Your task to perform on an android device: Open display settings Image 0: 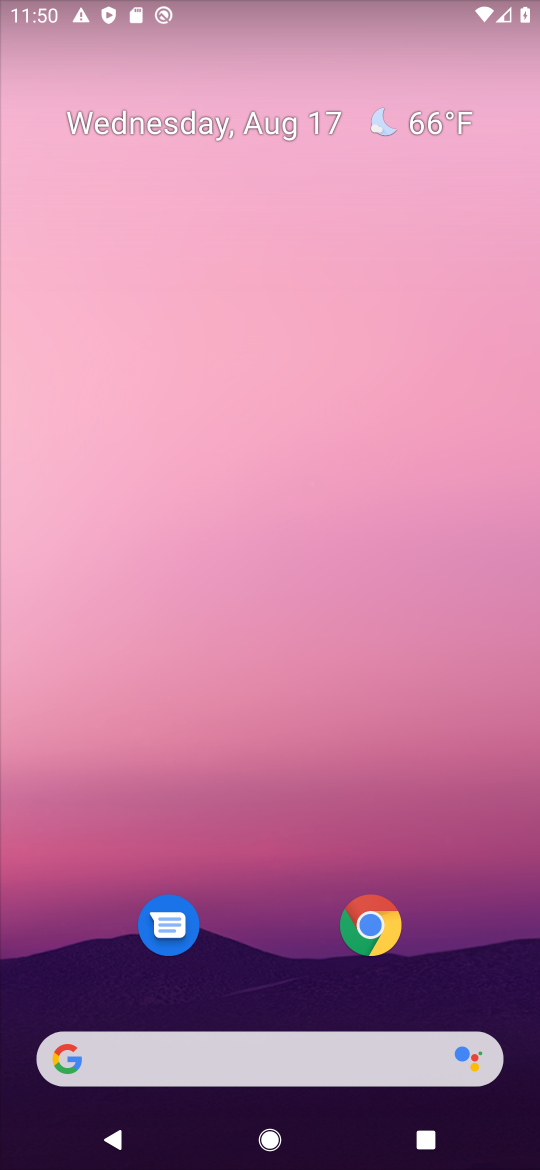
Step 0: drag from (275, 566) to (313, 1)
Your task to perform on an android device: Open display settings Image 1: 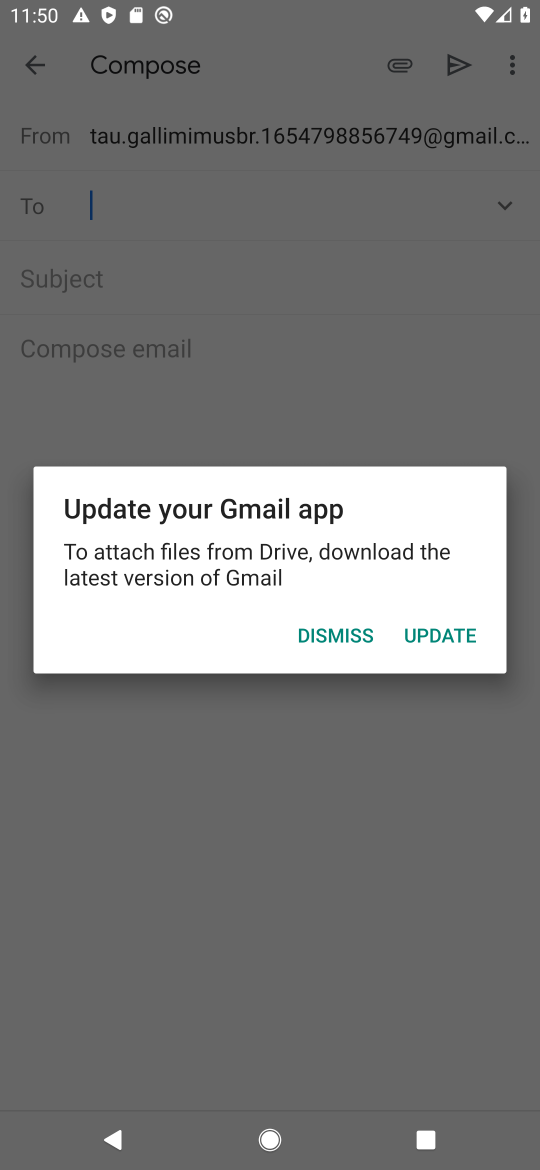
Step 1: drag from (281, 773) to (338, 270)
Your task to perform on an android device: Open display settings Image 2: 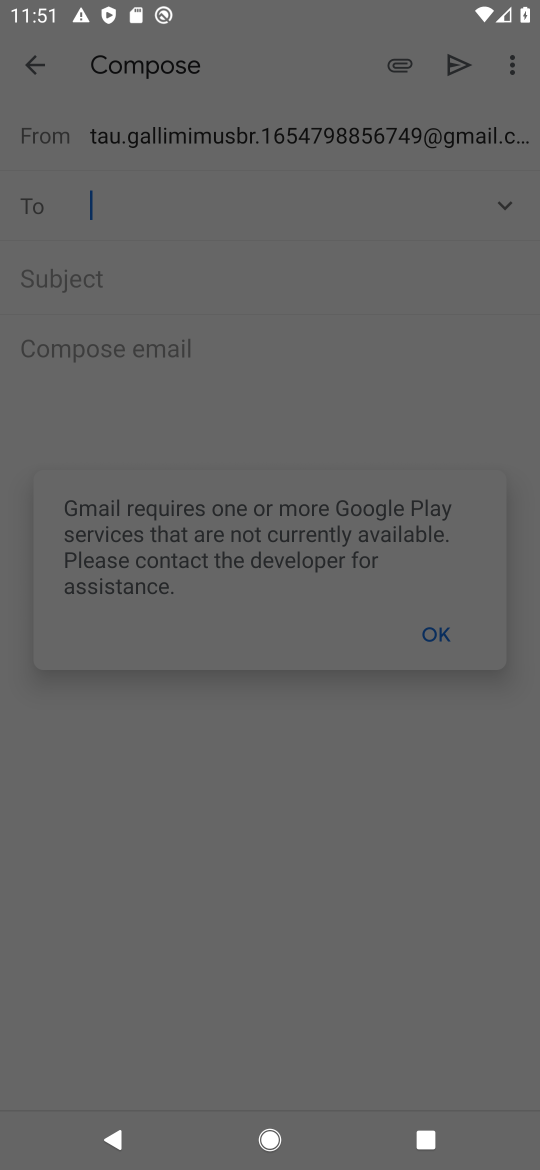
Step 2: press home button
Your task to perform on an android device: Open display settings Image 3: 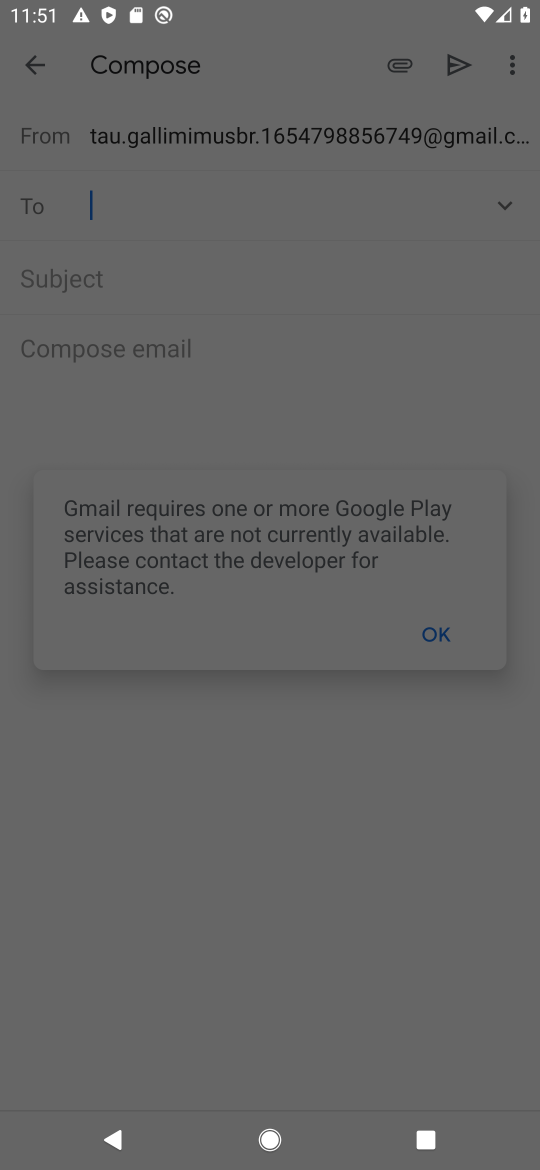
Step 3: press home button
Your task to perform on an android device: Open display settings Image 4: 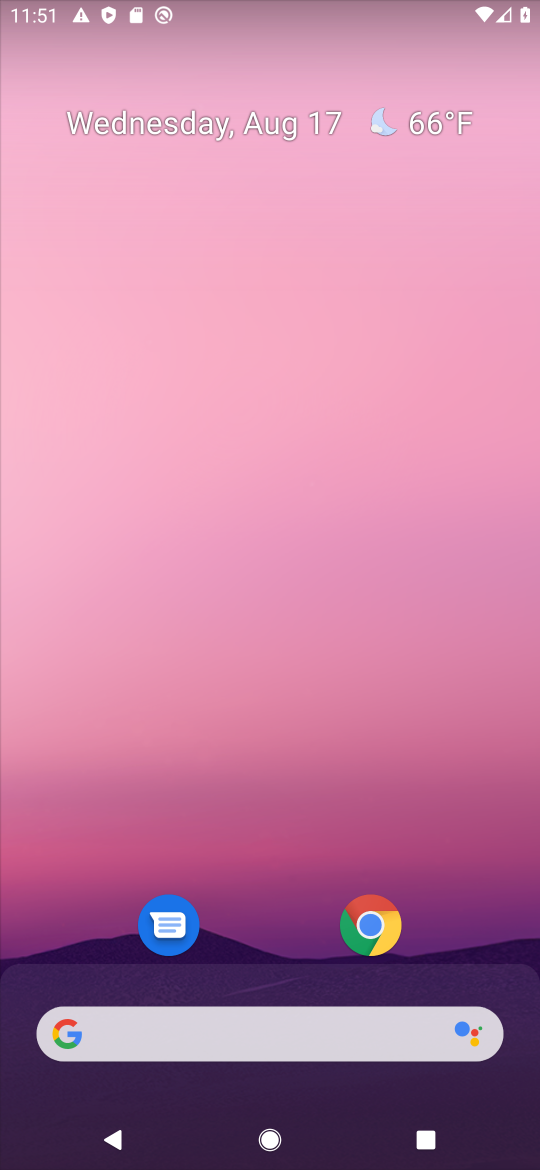
Step 4: drag from (291, 898) to (368, 180)
Your task to perform on an android device: Open display settings Image 5: 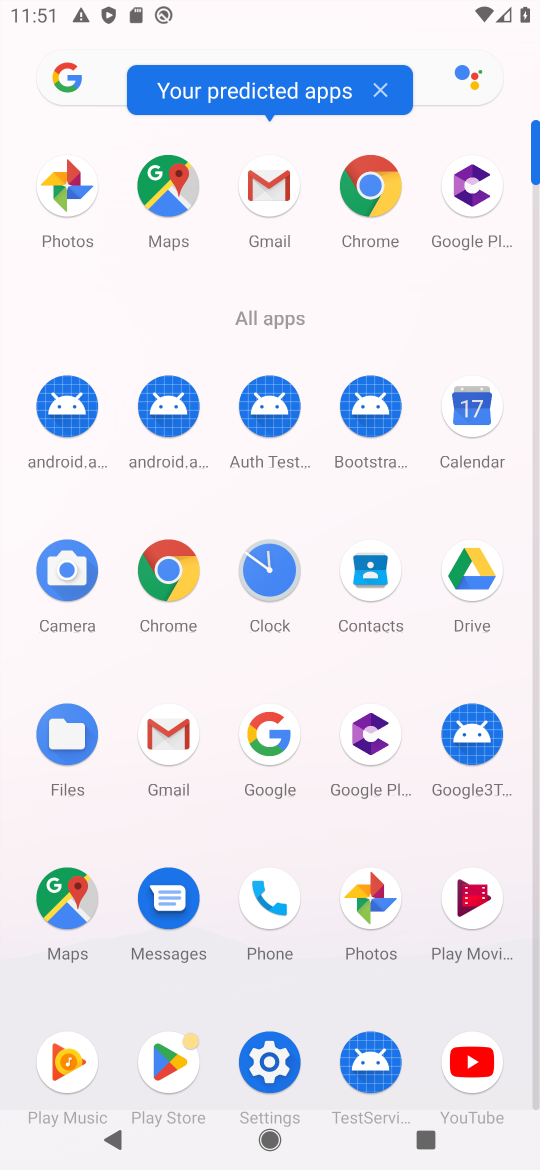
Step 5: click (270, 1064)
Your task to perform on an android device: Open display settings Image 6: 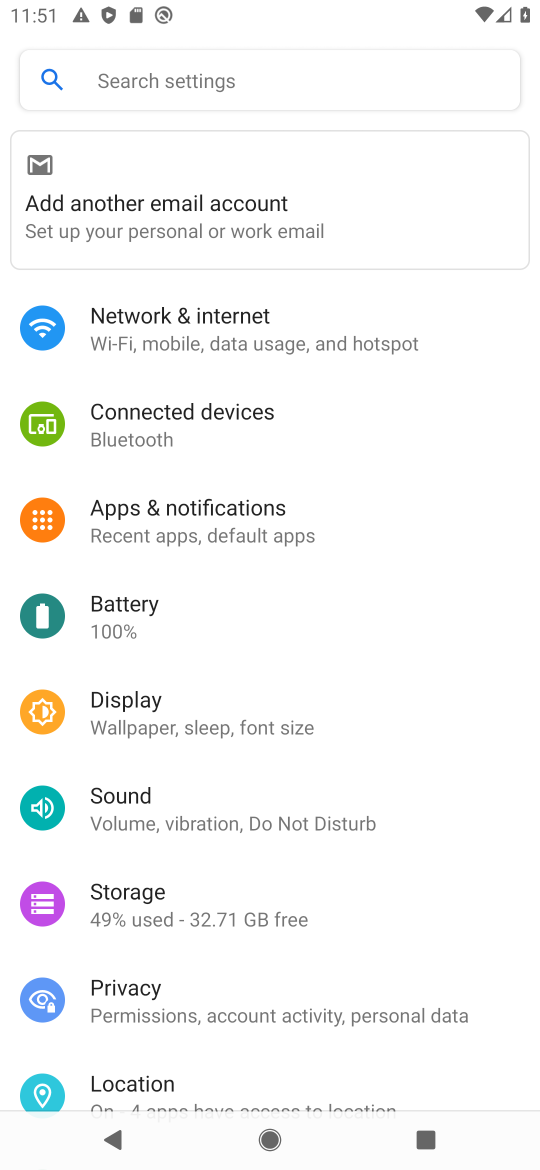
Step 6: click (174, 728)
Your task to perform on an android device: Open display settings Image 7: 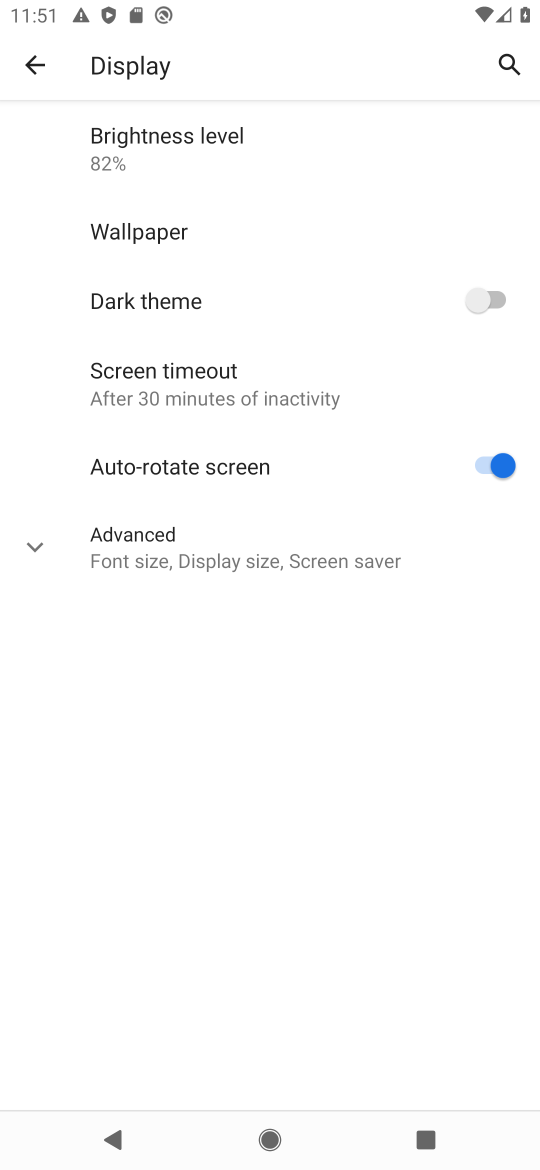
Step 7: task complete